Your task to perform on an android device: Open the settings Image 0: 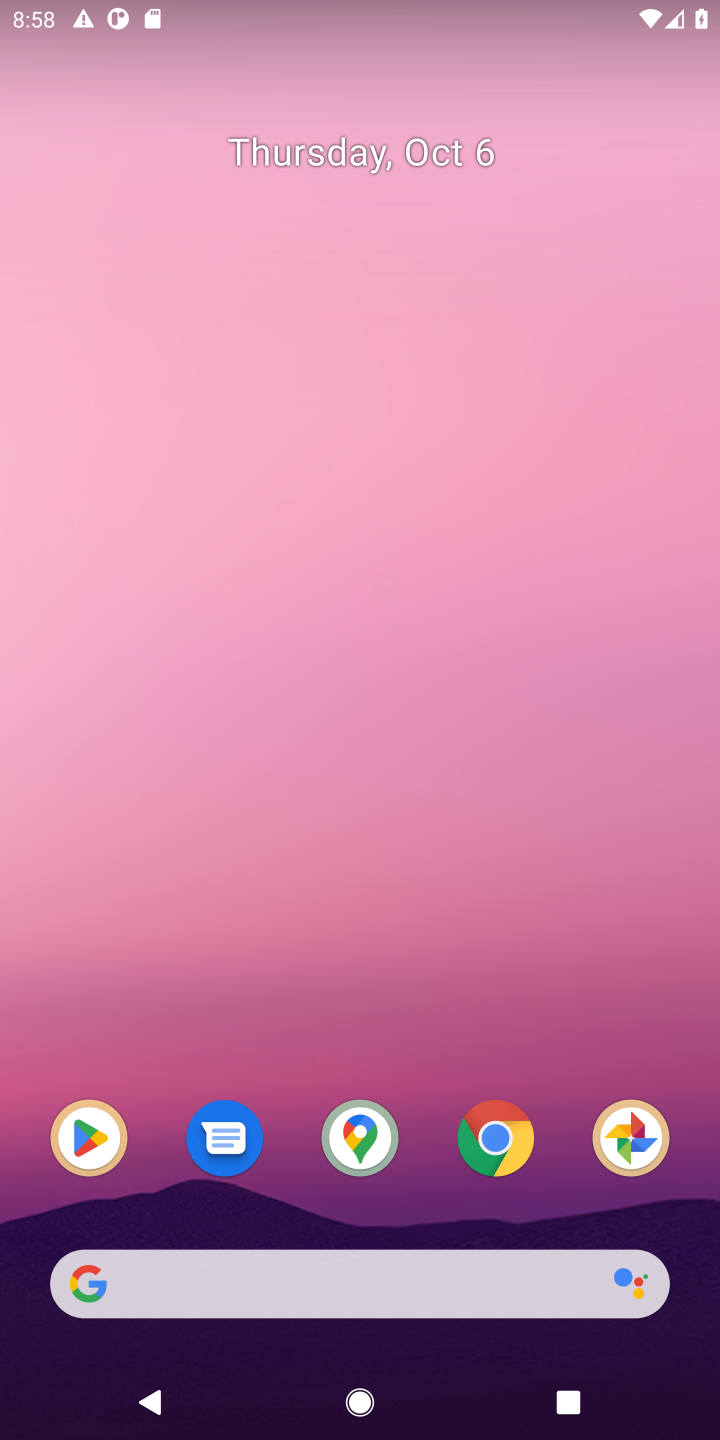
Step 0: drag from (441, 1207) to (323, 381)
Your task to perform on an android device: Open the settings Image 1: 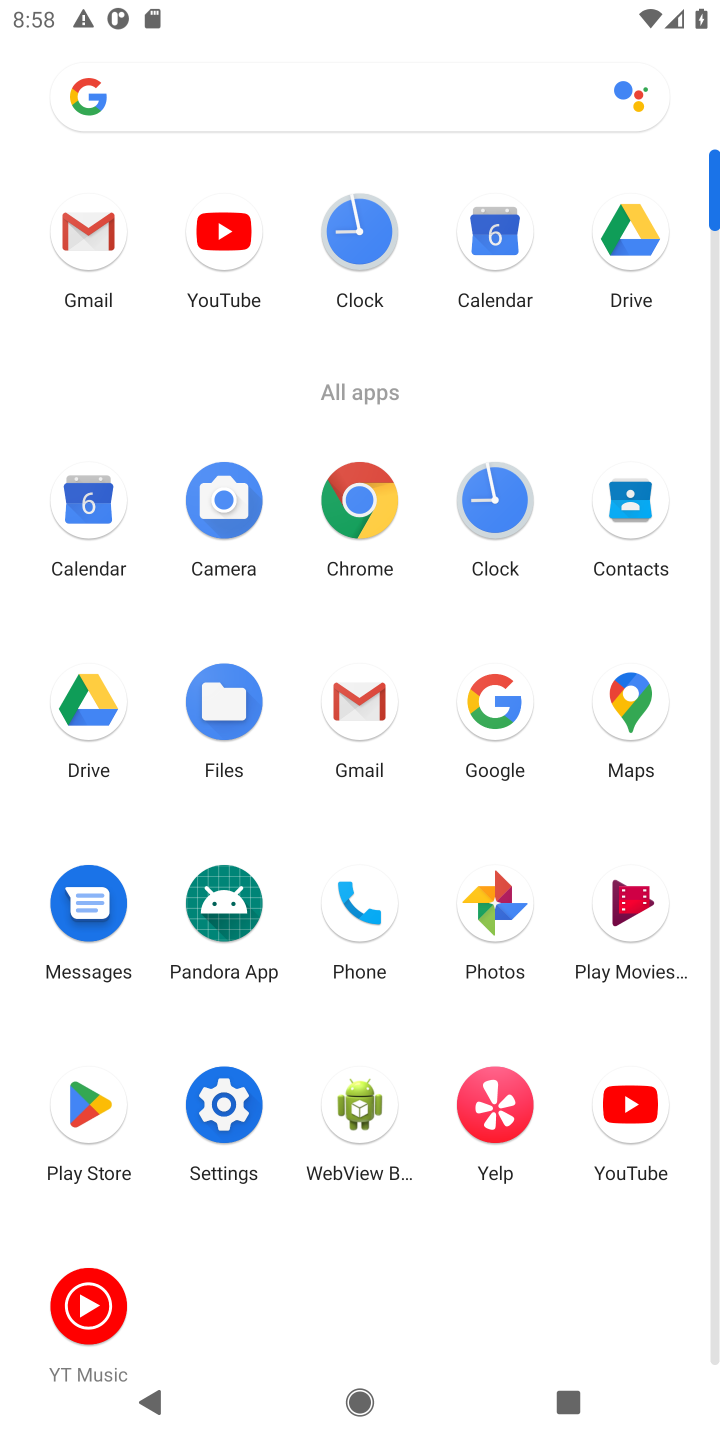
Step 1: click (214, 1110)
Your task to perform on an android device: Open the settings Image 2: 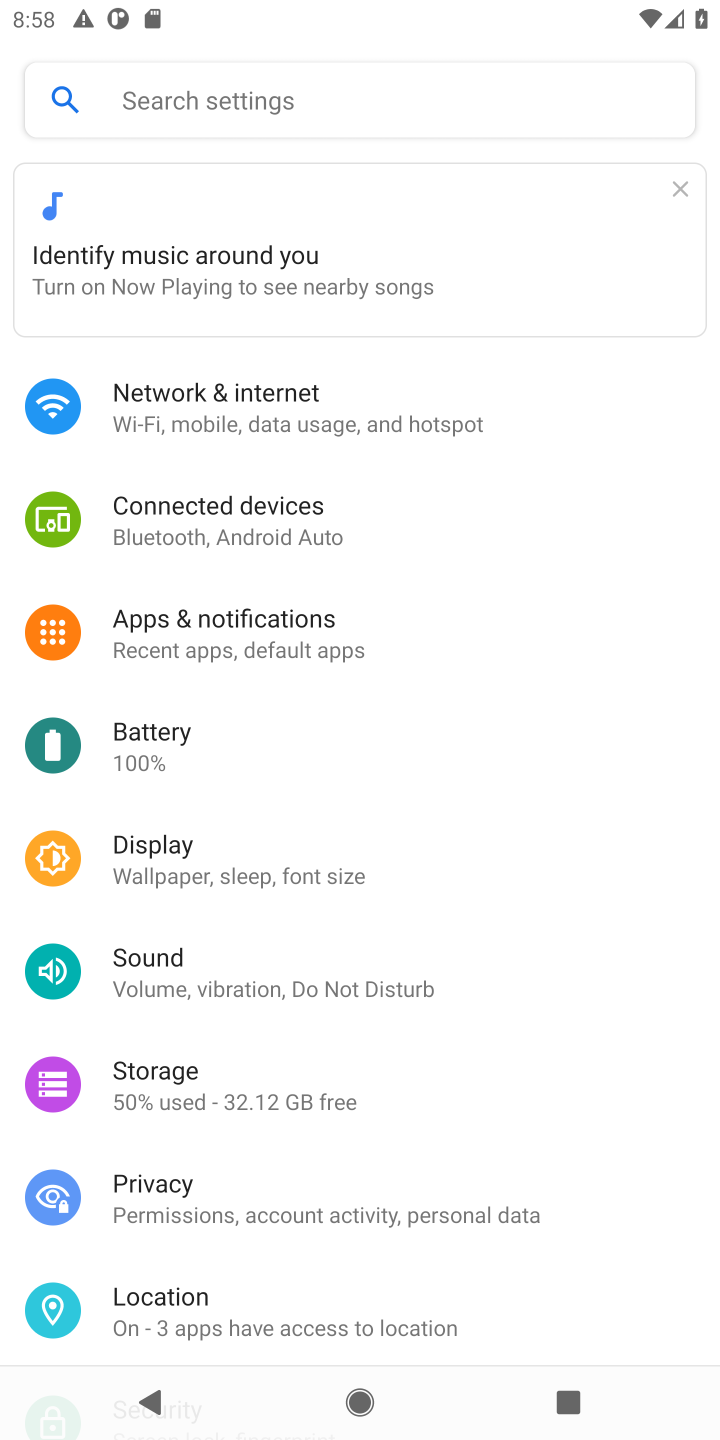
Step 2: task complete